Your task to perform on an android device: turn off translation in the chrome app Image 0: 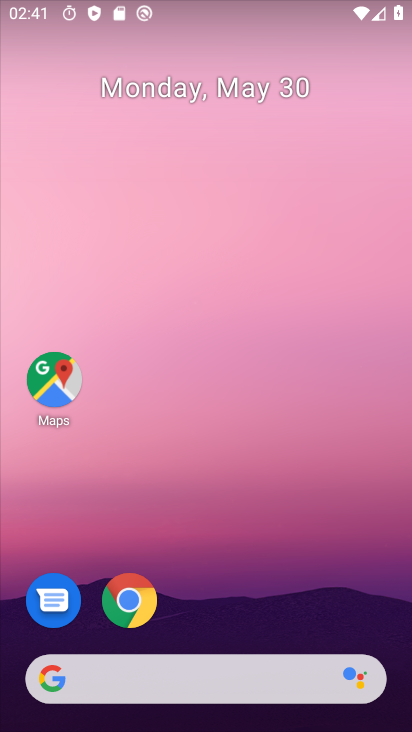
Step 0: click (140, 606)
Your task to perform on an android device: turn off translation in the chrome app Image 1: 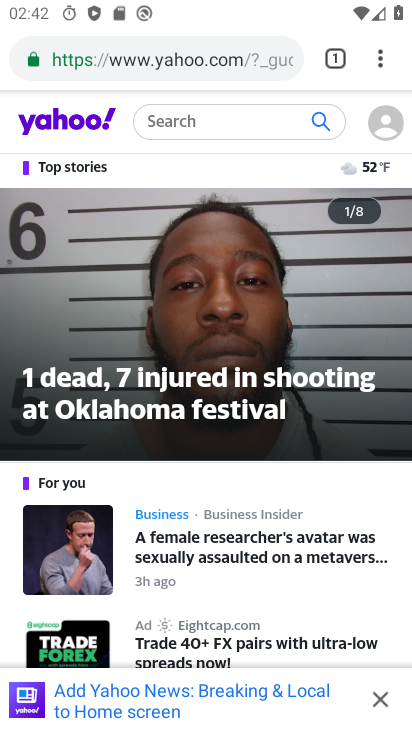
Step 1: click (388, 57)
Your task to perform on an android device: turn off translation in the chrome app Image 2: 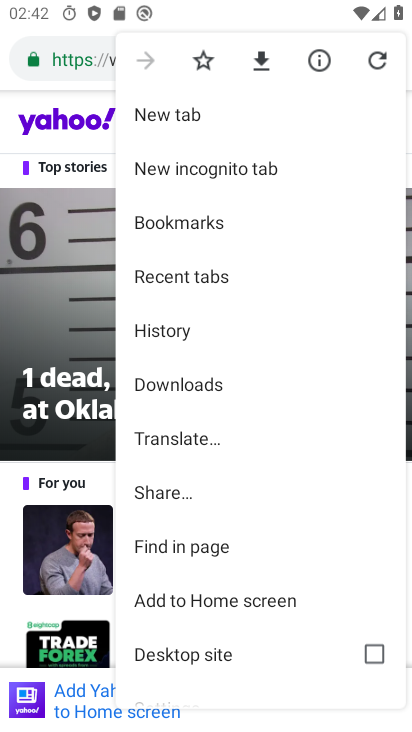
Step 2: drag from (263, 537) to (292, 201)
Your task to perform on an android device: turn off translation in the chrome app Image 3: 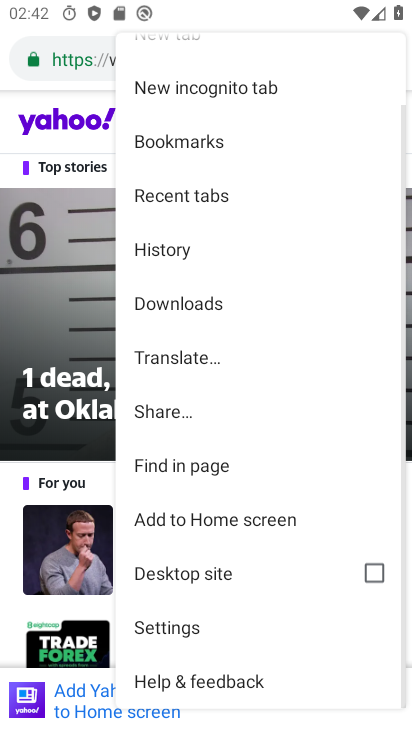
Step 3: click (200, 628)
Your task to perform on an android device: turn off translation in the chrome app Image 4: 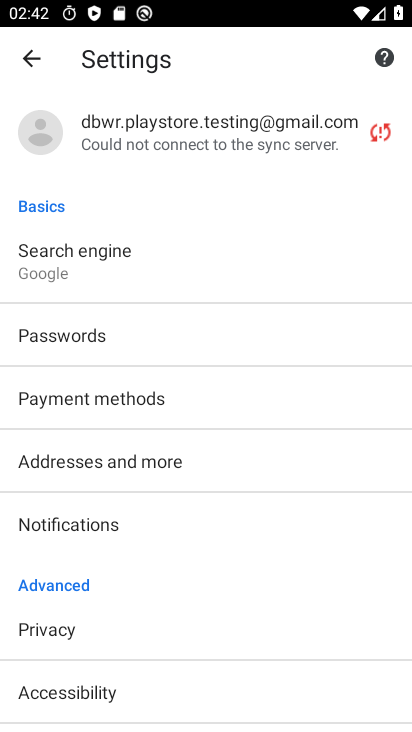
Step 4: drag from (241, 589) to (272, 142)
Your task to perform on an android device: turn off translation in the chrome app Image 5: 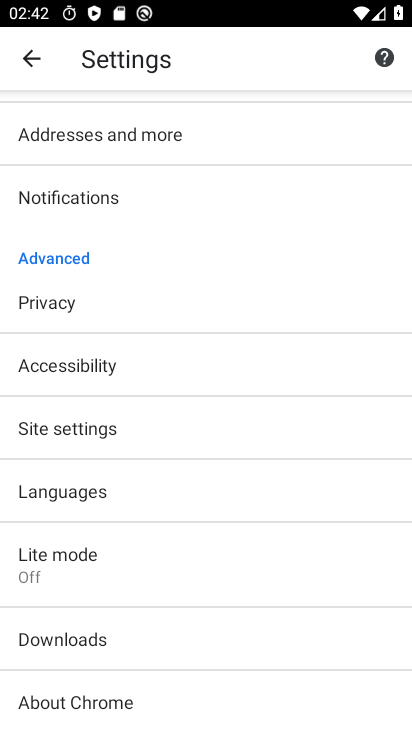
Step 5: click (124, 495)
Your task to perform on an android device: turn off translation in the chrome app Image 6: 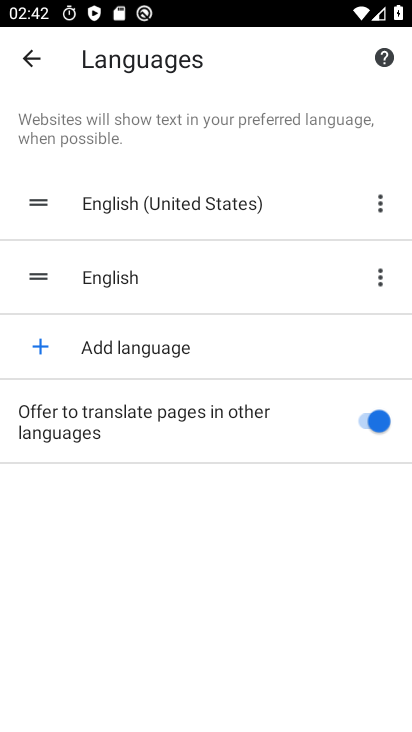
Step 6: click (368, 422)
Your task to perform on an android device: turn off translation in the chrome app Image 7: 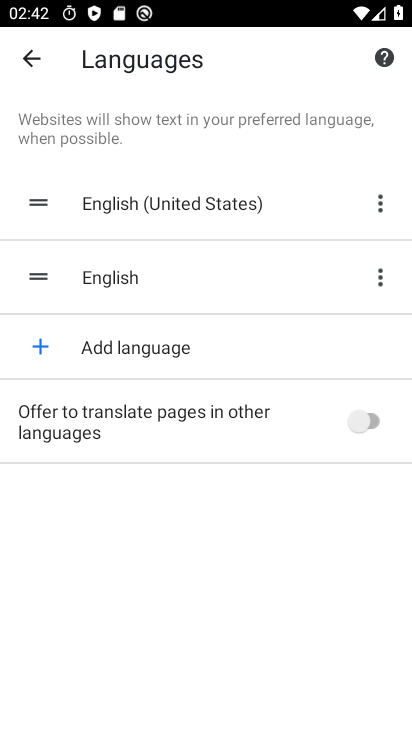
Step 7: task complete